Your task to perform on an android device: Is it going to rain this weekend? Image 0: 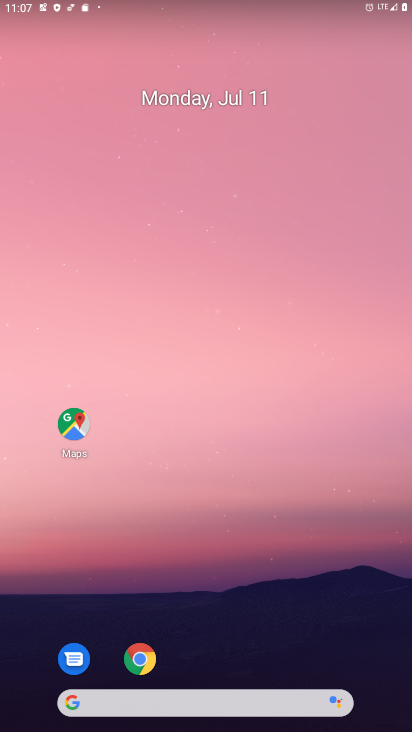
Step 0: drag from (195, 625) to (249, 71)
Your task to perform on an android device: Is it going to rain this weekend? Image 1: 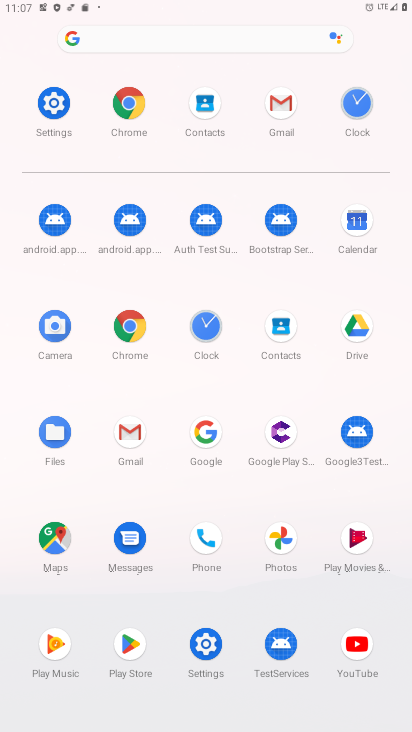
Step 1: click (233, 41)
Your task to perform on an android device: Is it going to rain this weekend? Image 2: 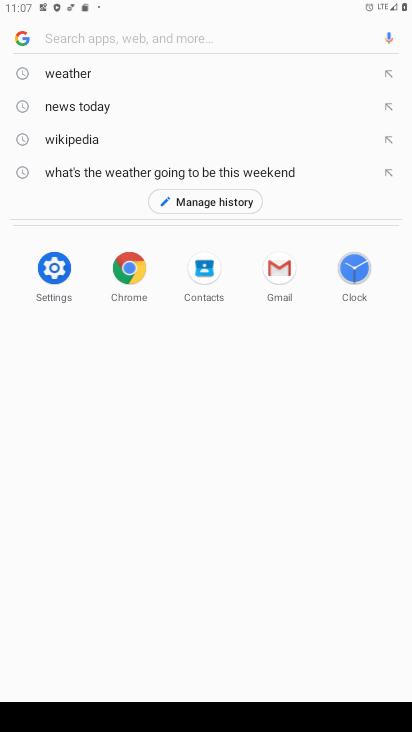
Step 2: click (286, 170)
Your task to perform on an android device: Is it going to rain this weekend? Image 3: 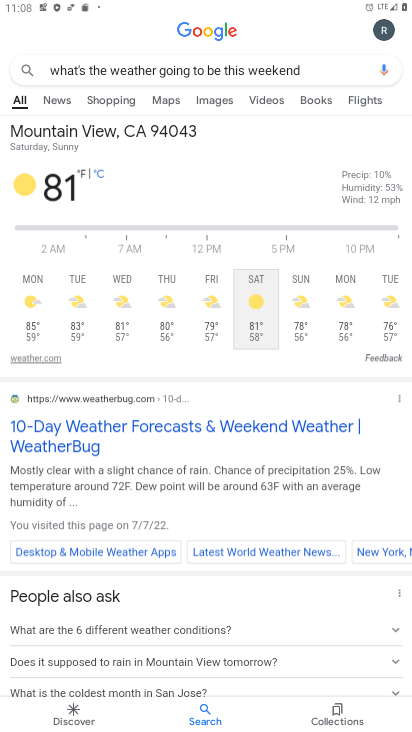
Step 3: task complete